Your task to perform on an android device: toggle wifi Image 0: 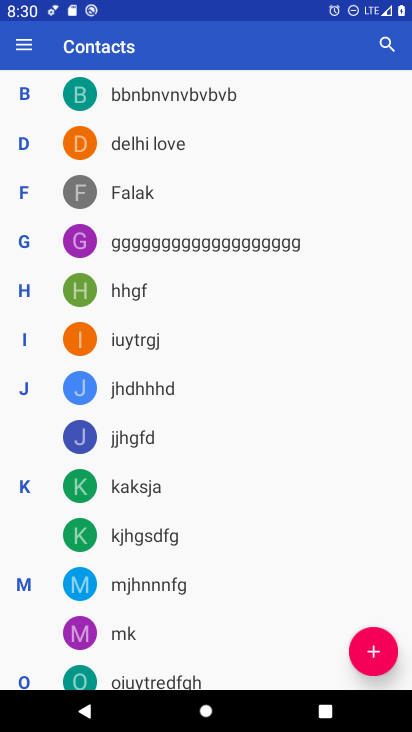
Step 0: press home button
Your task to perform on an android device: toggle wifi Image 1: 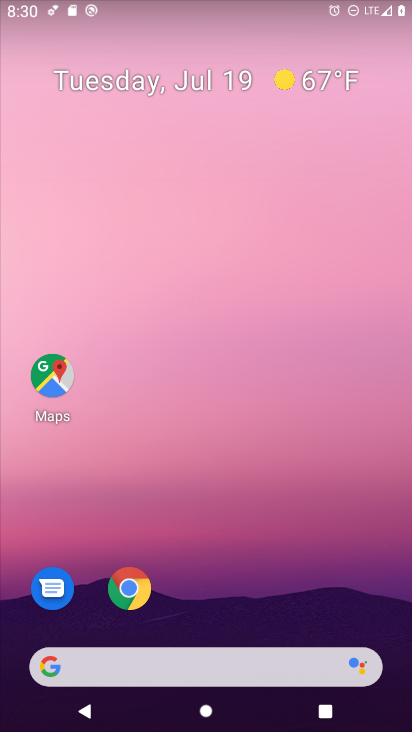
Step 1: drag from (280, 581) to (282, 117)
Your task to perform on an android device: toggle wifi Image 2: 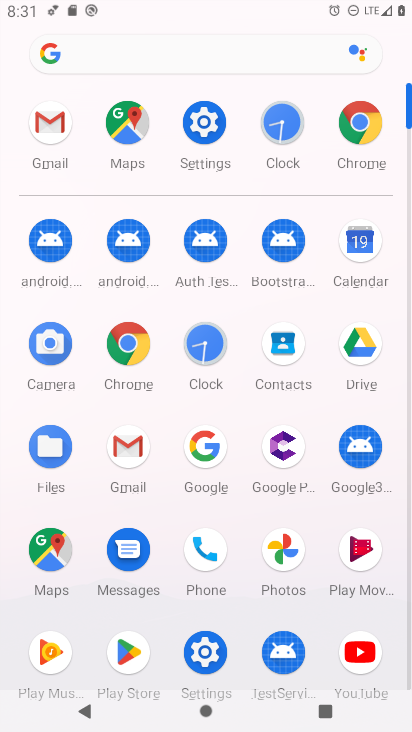
Step 2: click (207, 132)
Your task to perform on an android device: toggle wifi Image 3: 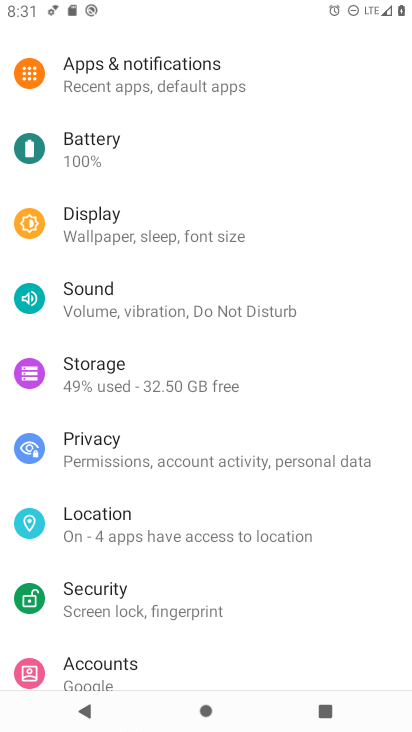
Step 3: drag from (278, 167) to (305, 365)
Your task to perform on an android device: toggle wifi Image 4: 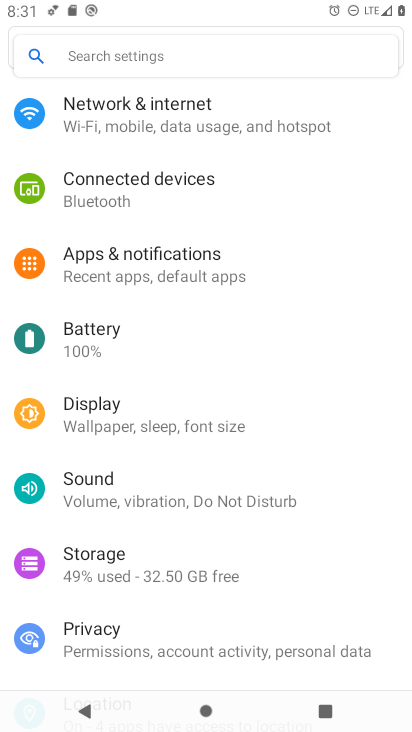
Step 4: drag from (323, 255) to (336, 460)
Your task to perform on an android device: toggle wifi Image 5: 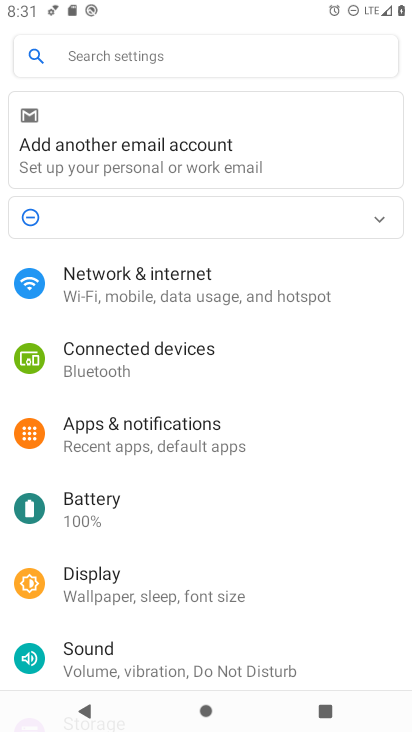
Step 5: click (281, 288)
Your task to perform on an android device: toggle wifi Image 6: 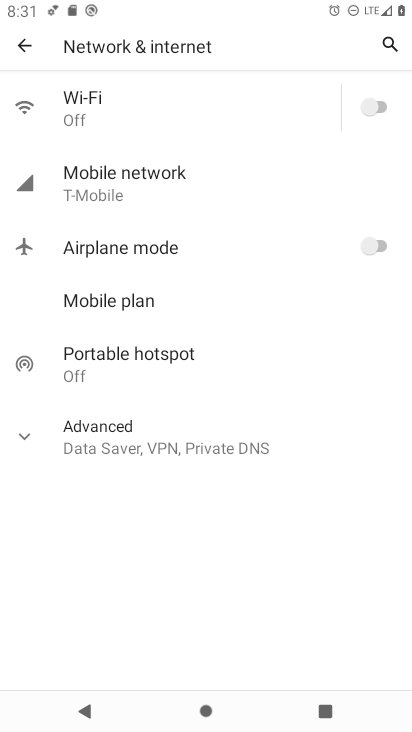
Step 6: click (376, 108)
Your task to perform on an android device: toggle wifi Image 7: 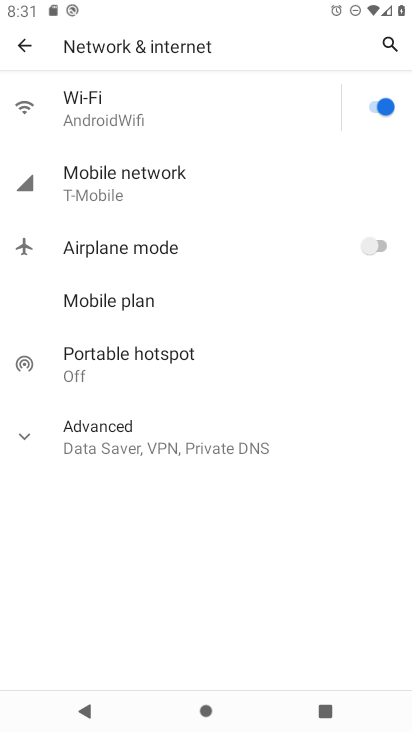
Step 7: task complete